Your task to perform on an android device: toggle notification dots Image 0: 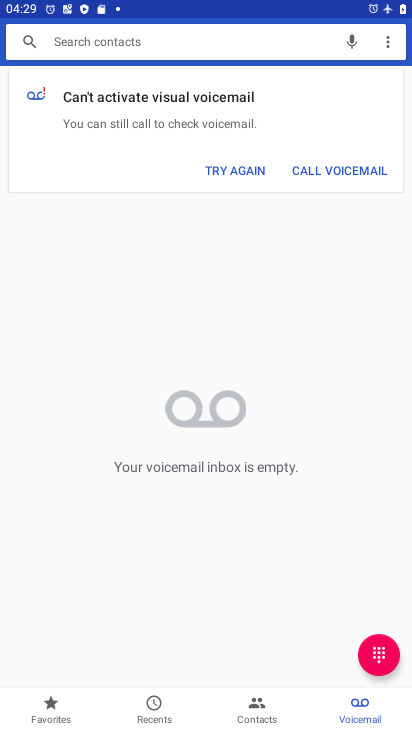
Step 0: press home button
Your task to perform on an android device: toggle notification dots Image 1: 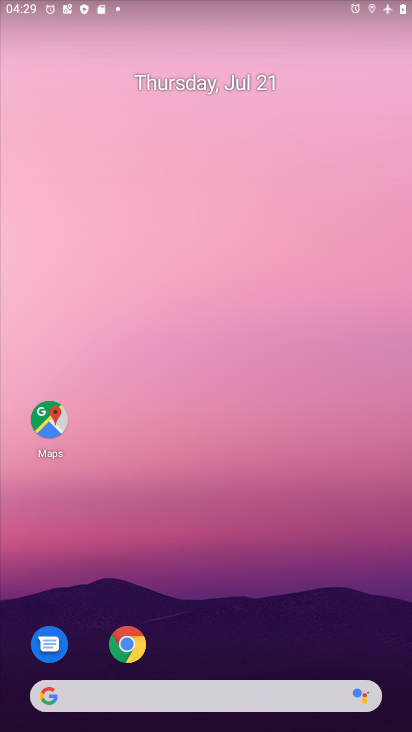
Step 1: drag from (232, 656) to (252, 39)
Your task to perform on an android device: toggle notification dots Image 2: 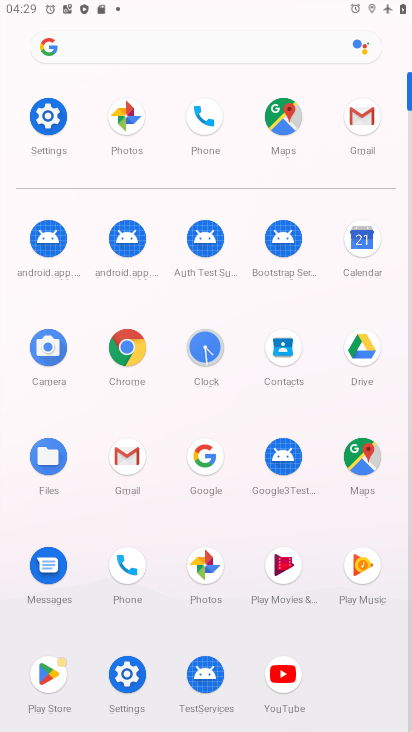
Step 2: click (47, 116)
Your task to perform on an android device: toggle notification dots Image 3: 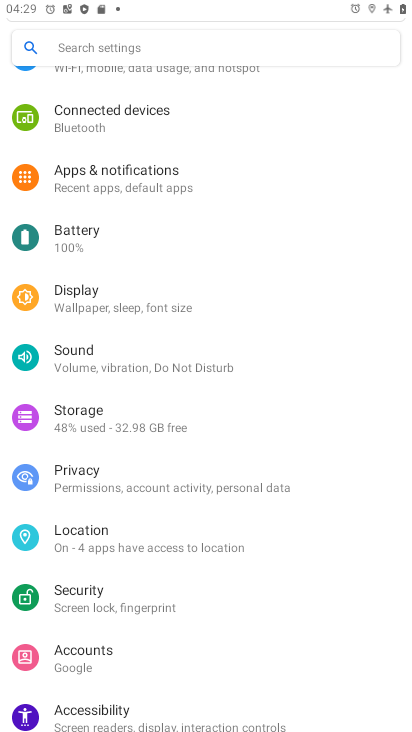
Step 3: click (118, 186)
Your task to perform on an android device: toggle notification dots Image 4: 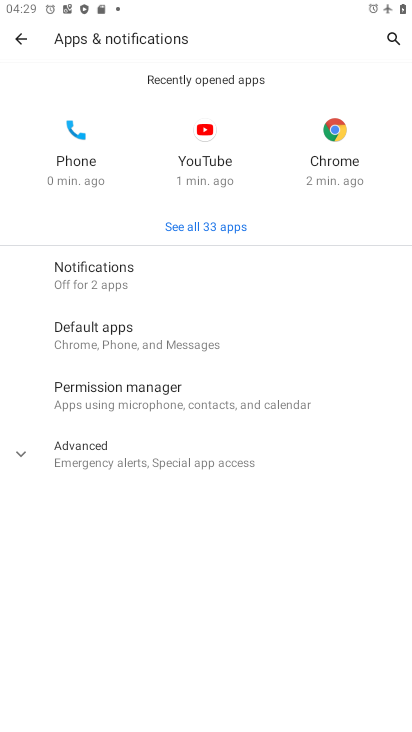
Step 4: click (77, 283)
Your task to perform on an android device: toggle notification dots Image 5: 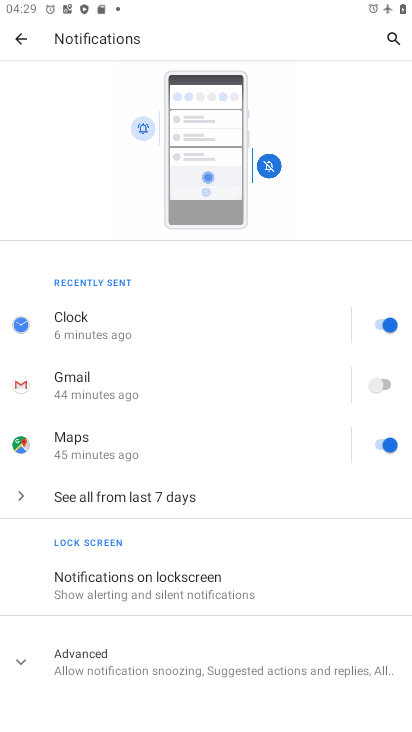
Step 5: drag from (125, 467) to (134, 330)
Your task to perform on an android device: toggle notification dots Image 6: 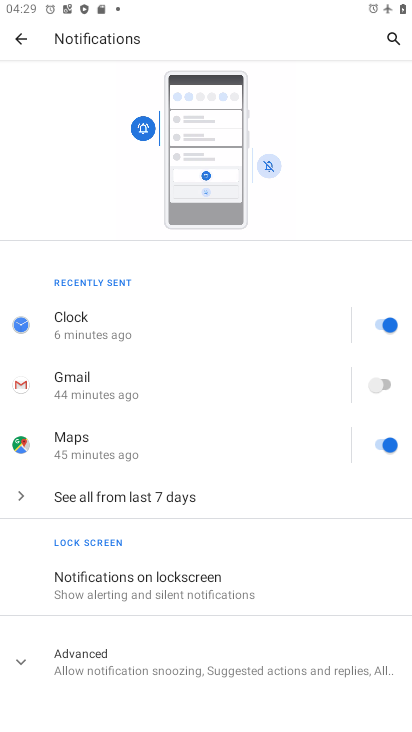
Step 6: click (24, 668)
Your task to perform on an android device: toggle notification dots Image 7: 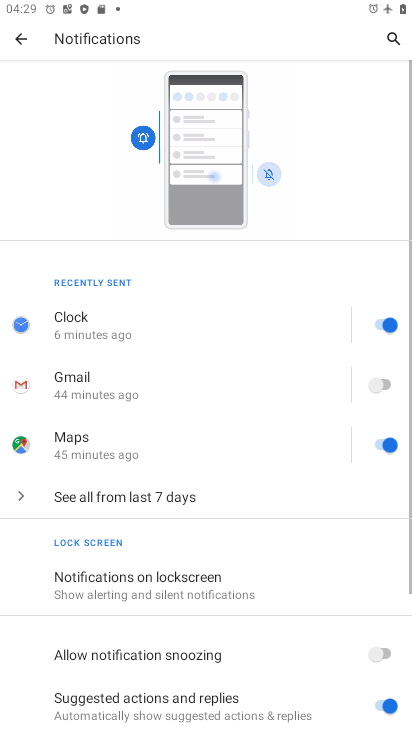
Step 7: drag from (110, 668) to (153, 312)
Your task to perform on an android device: toggle notification dots Image 8: 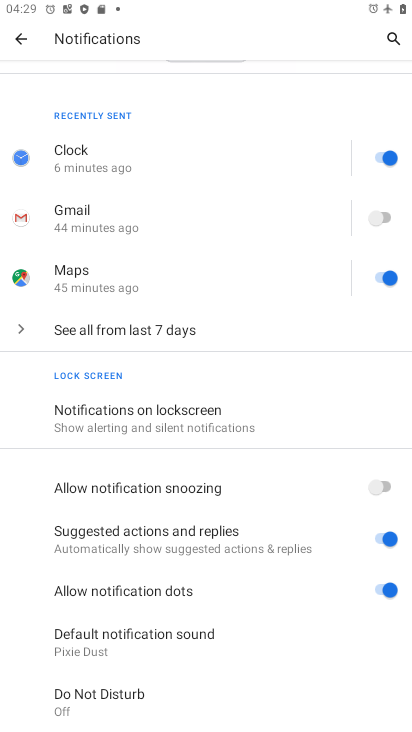
Step 8: click (389, 596)
Your task to perform on an android device: toggle notification dots Image 9: 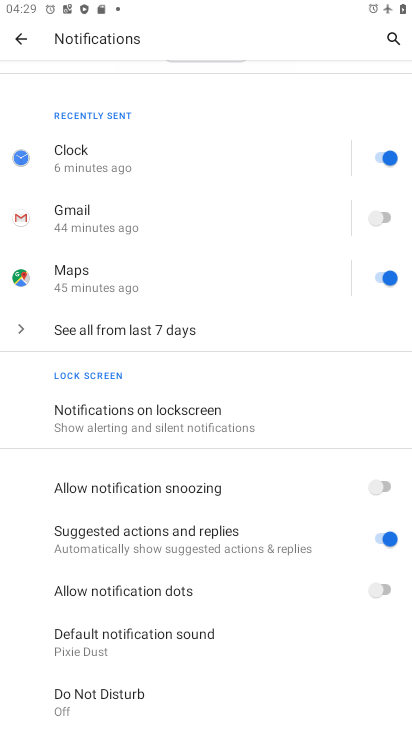
Step 9: task complete